Your task to perform on an android device: open chrome and create a bookmark for the current page Image 0: 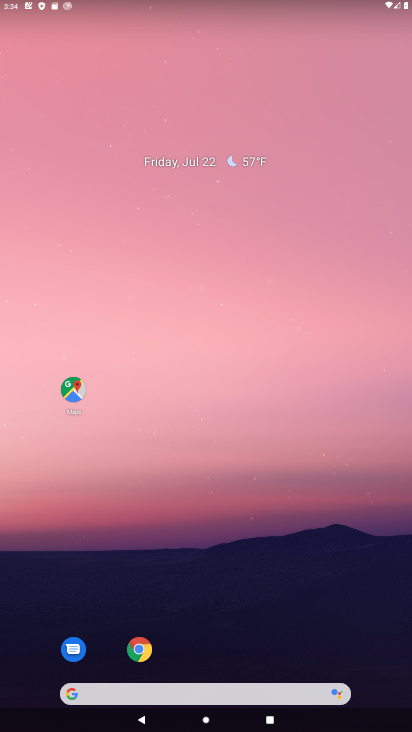
Step 0: click (120, 635)
Your task to perform on an android device: open chrome and create a bookmark for the current page Image 1: 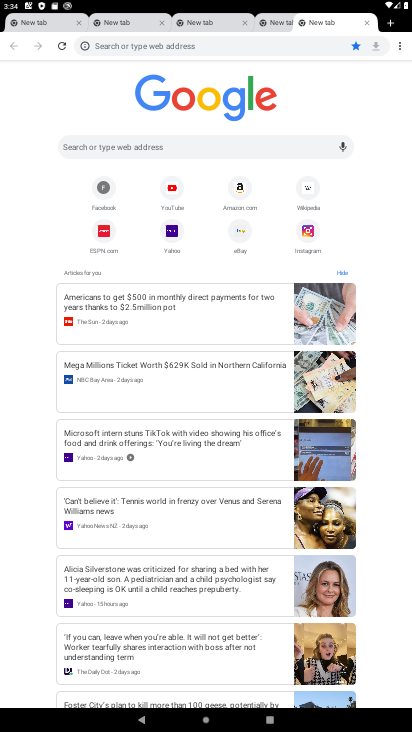
Step 1: click (398, 41)
Your task to perform on an android device: open chrome and create a bookmark for the current page Image 2: 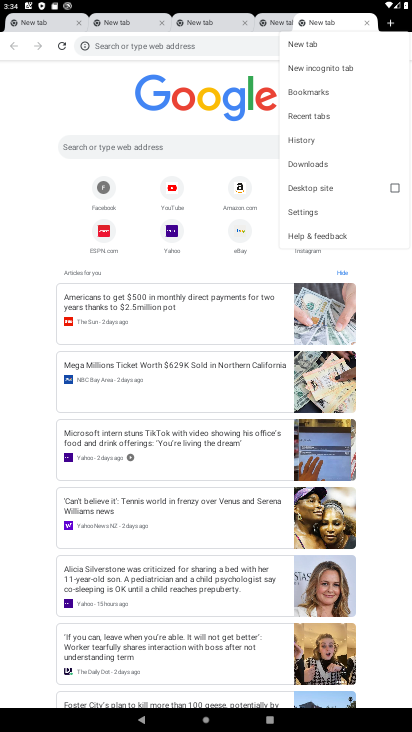
Step 2: click (260, 57)
Your task to perform on an android device: open chrome and create a bookmark for the current page Image 3: 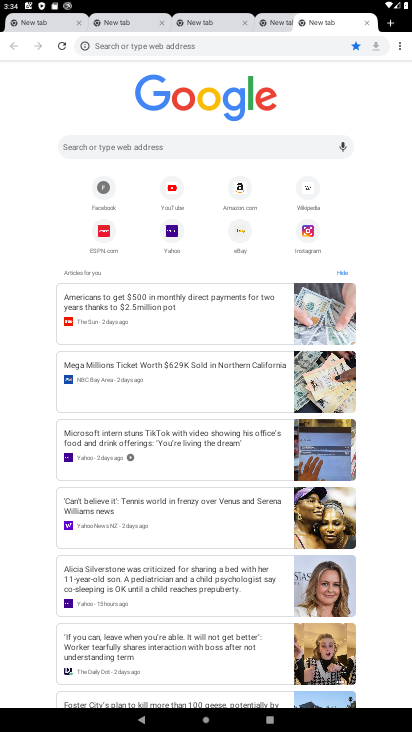
Step 3: click (357, 44)
Your task to perform on an android device: open chrome and create a bookmark for the current page Image 4: 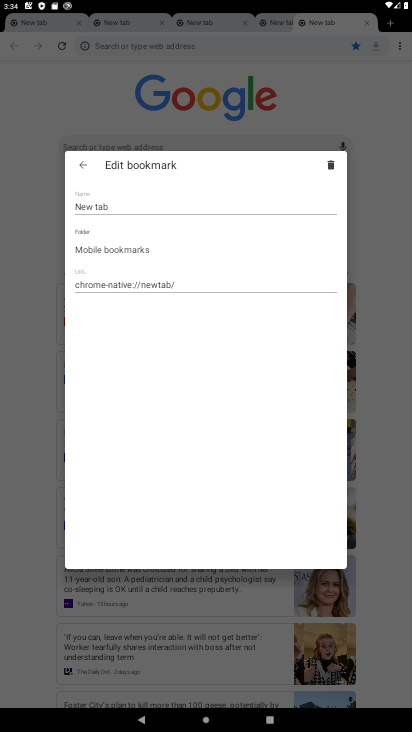
Step 4: task complete